Your task to perform on an android device: open a new tab in the chrome app Image 0: 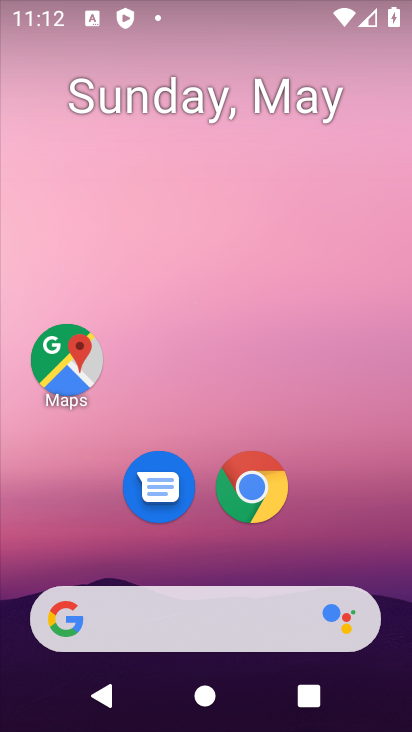
Step 0: drag from (147, 546) to (268, 40)
Your task to perform on an android device: open a new tab in the chrome app Image 1: 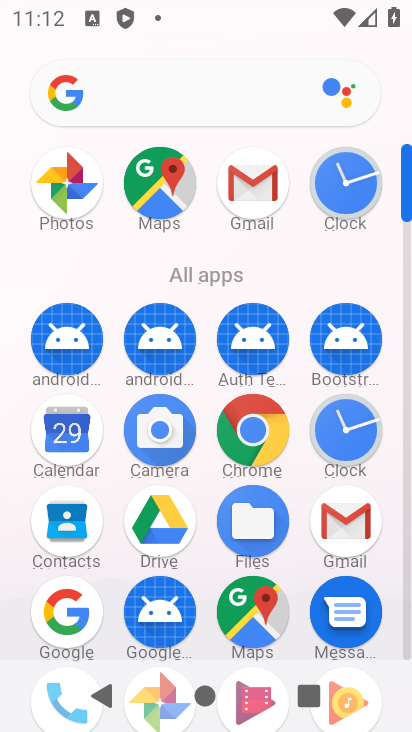
Step 1: click (245, 458)
Your task to perform on an android device: open a new tab in the chrome app Image 2: 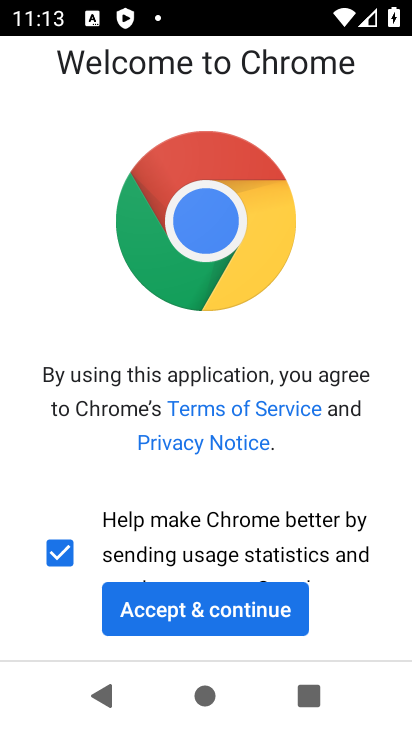
Step 2: click (237, 620)
Your task to perform on an android device: open a new tab in the chrome app Image 3: 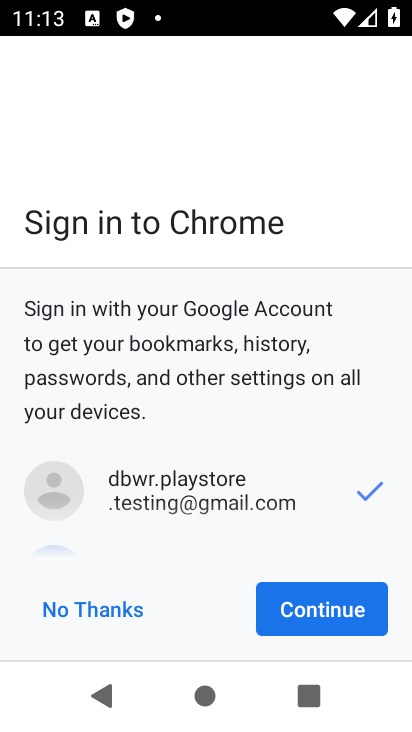
Step 3: click (302, 610)
Your task to perform on an android device: open a new tab in the chrome app Image 4: 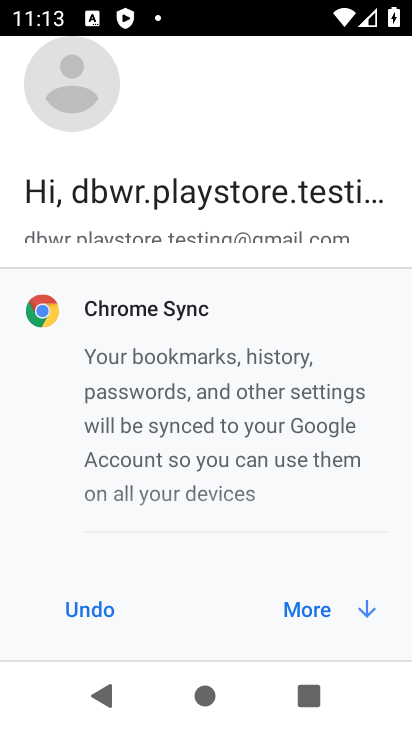
Step 4: click (325, 610)
Your task to perform on an android device: open a new tab in the chrome app Image 5: 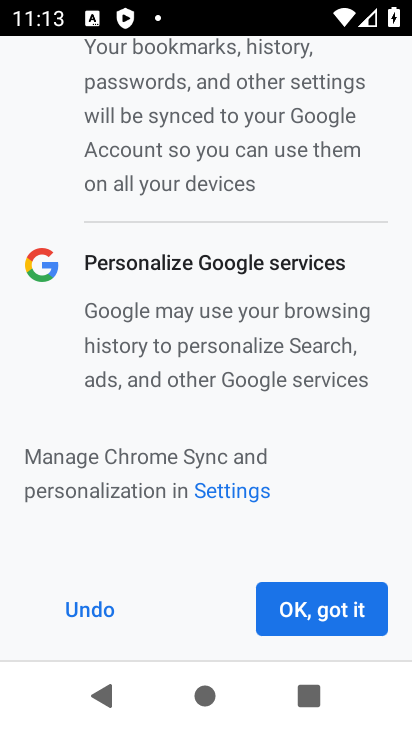
Step 5: click (330, 610)
Your task to perform on an android device: open a new tab in the chrome app Image 6: 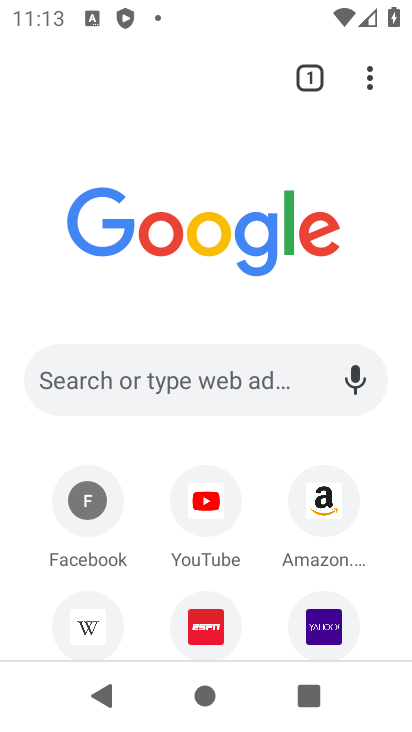
Step 6: drag from (302, 64) to (214, 524)
Your task to perform on an android device: open a new tab in the chrome app Image 7: 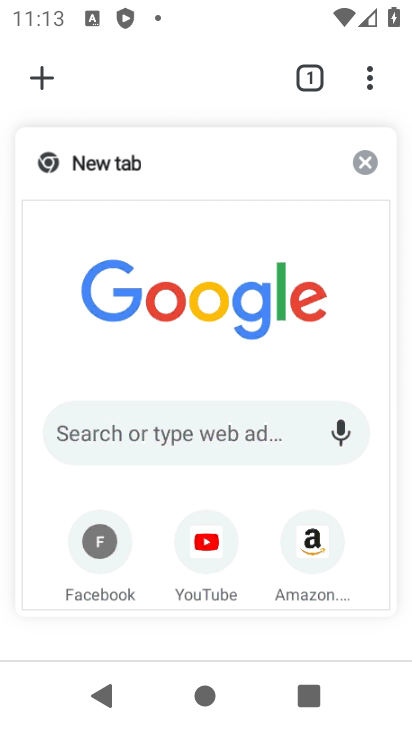
Step 7: click (43, 93)
Your task to perform on an android device: open a new tab in the chrome app Image 8: 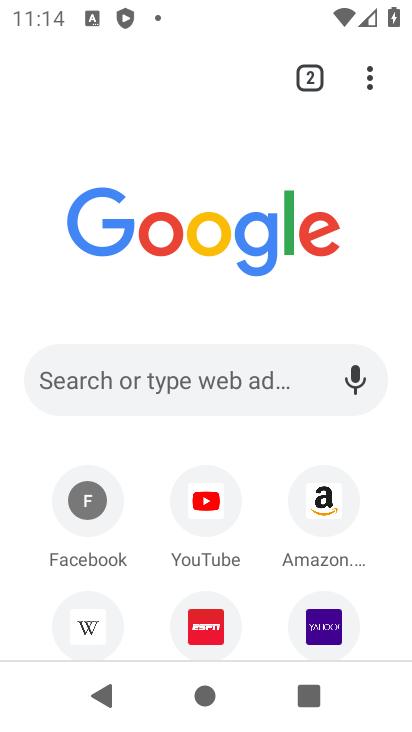
Step 8: task complete